Your task to perform on an android device: Open calendar and show me the third week of next month Image 0: 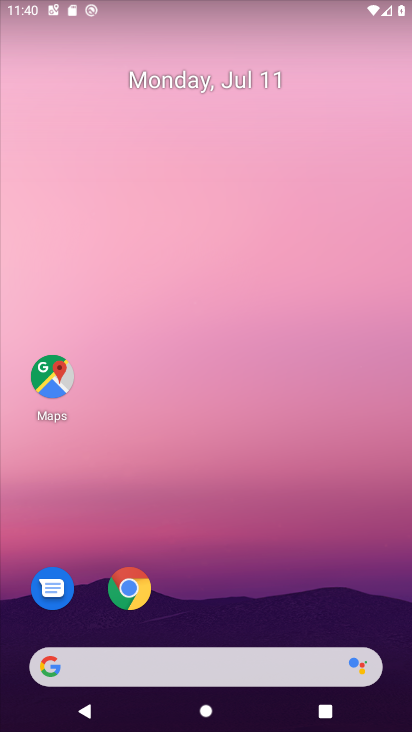
Step 0: drag from (264, 632) to (263, 307)
Your task to perform on an android device: Open calendar and show me the third week of next month Image 1: 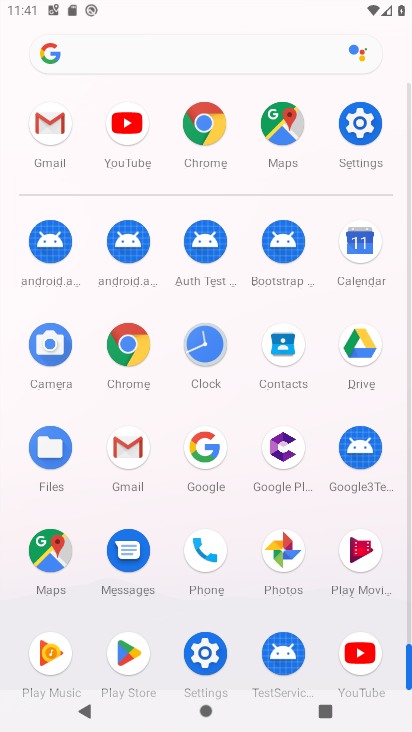
Step 1: click (354, 243)
Your task to perform on an android device: Open calendar and show me the third week of next month Image 2: 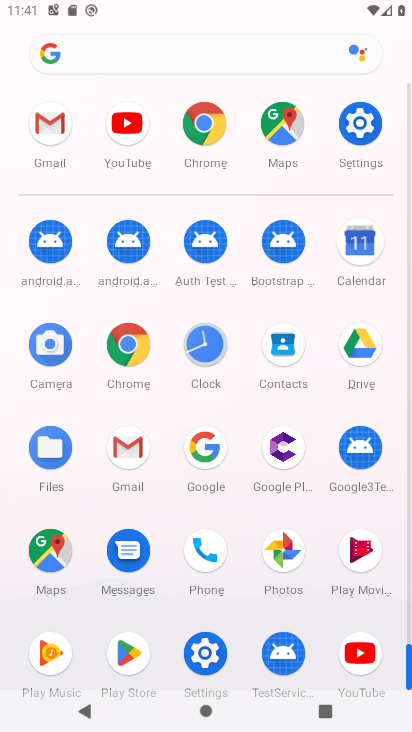
Step 2: click (361, 240)
Your task to perform on an android device: Open calendar and show me the third week of next month Image 3: 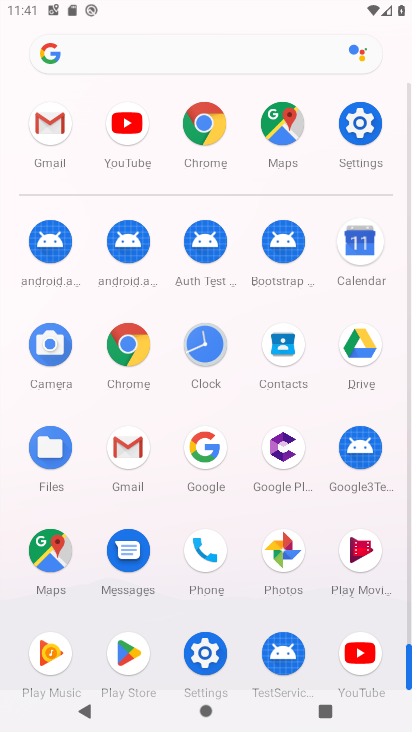
Step 3: click (364, 241)
Your task to perform on an android device: Open calendar and show me the third week of next month Image 4: 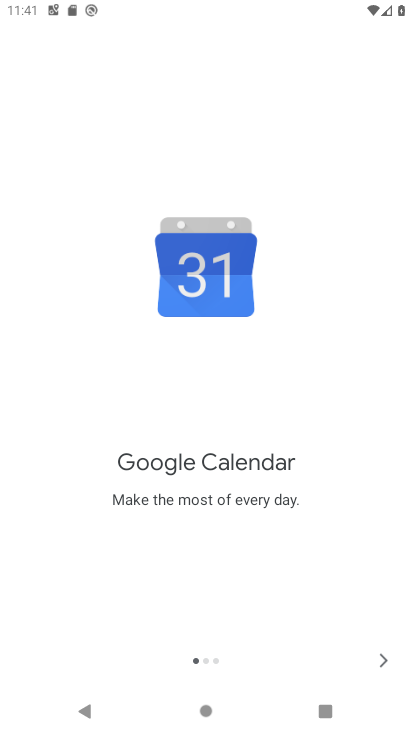
Step 4: click (380, 655)
Your task to perform on an android device: Open calendar and show me the third week of next month Image 5: 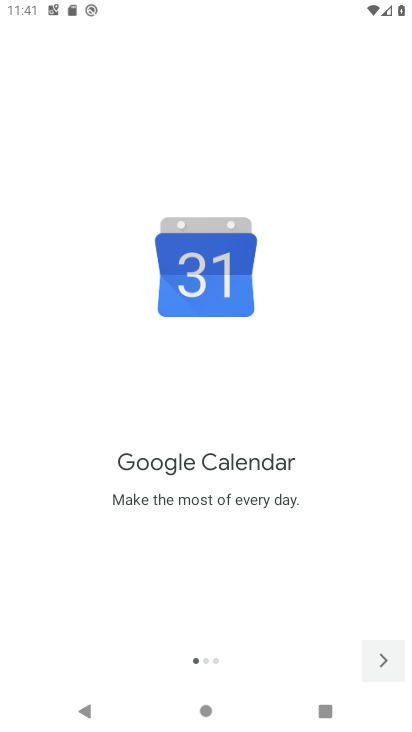
Step 5: click (386, 661)
Your task to perform on an android device: Open calendar and show me the third week of next month Image 6: 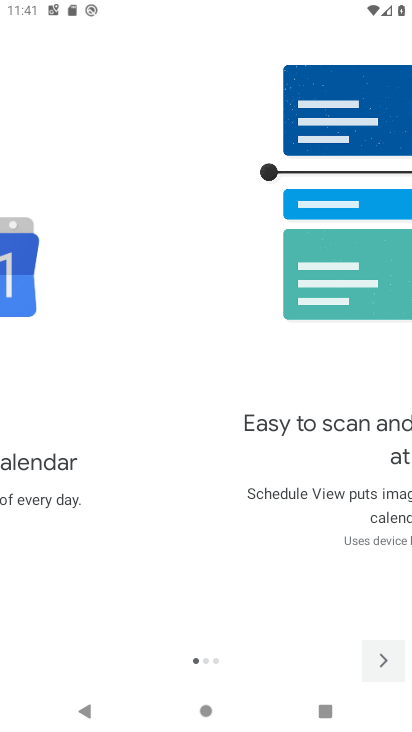
Step 6: click (388, 658)
Your task to perform on an android device: Open calendar and show me the third week of next month Image 7: 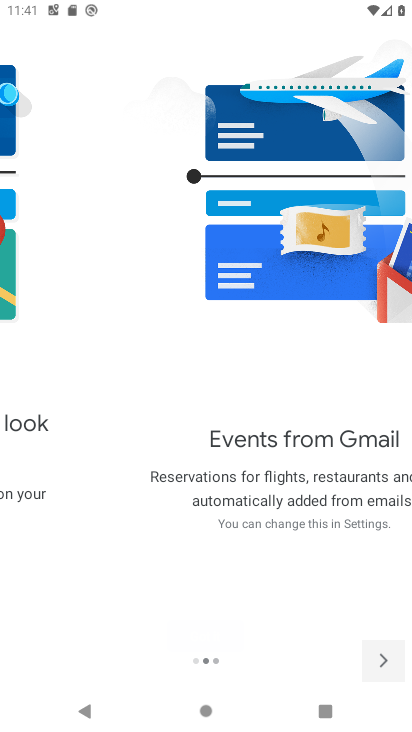
Step 7: click (388, 658)
Your task to perform on an android device: Open calendar and show me the third week of next month Image 8: 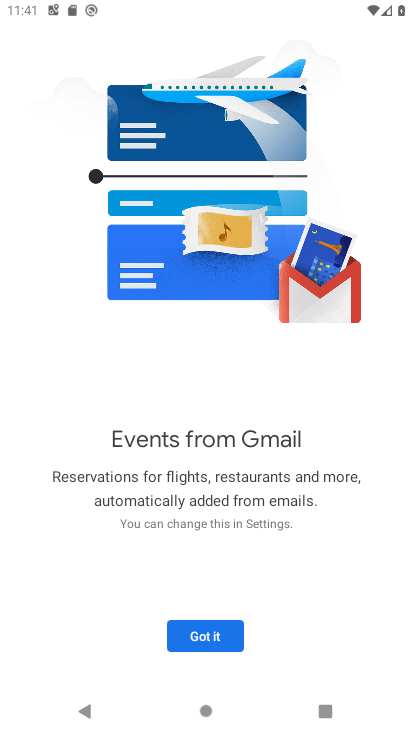
Step 8: click (383, 654)
Your task to perform on an android device: Open calendar and show me the third week of next month Image 9: 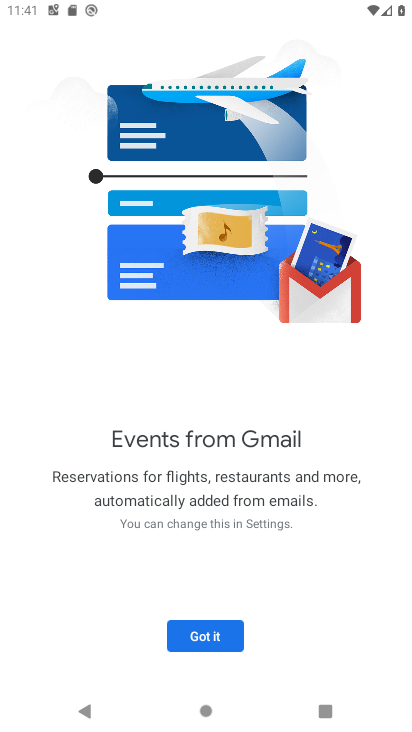
Step 9: click (227, 641)
Your task to perform on an android device: Open calendar and show me the third week of next month Image 10: 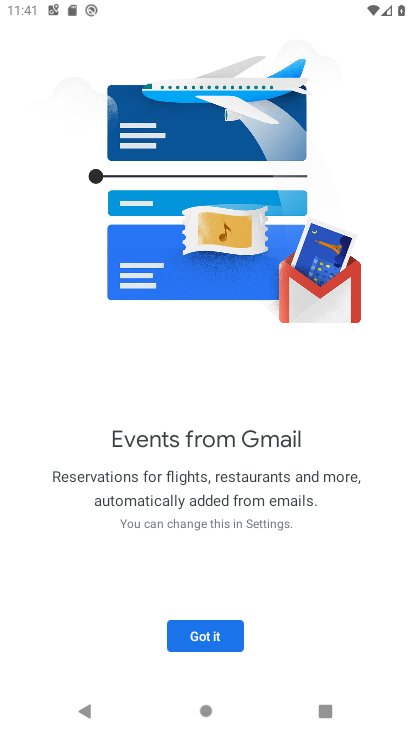
Step 10: click (216, 634)
Your task to perform on an android device: Open calendar and show me the third week of next month Image 11: 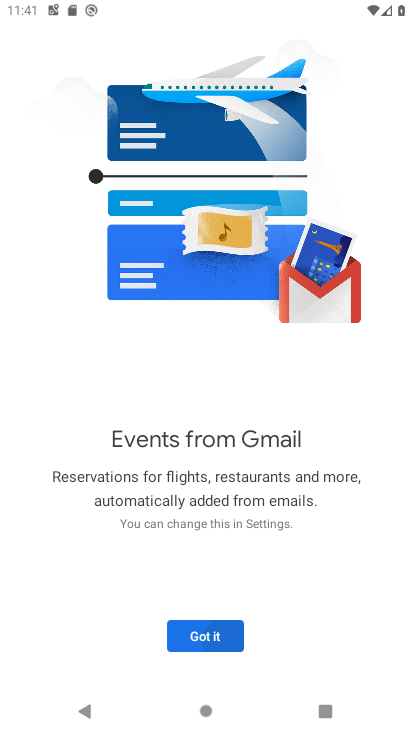
Step 11: click (215, 633)
Your task to perform on an android device: Open calendar and show me the third week of next month Image 12: 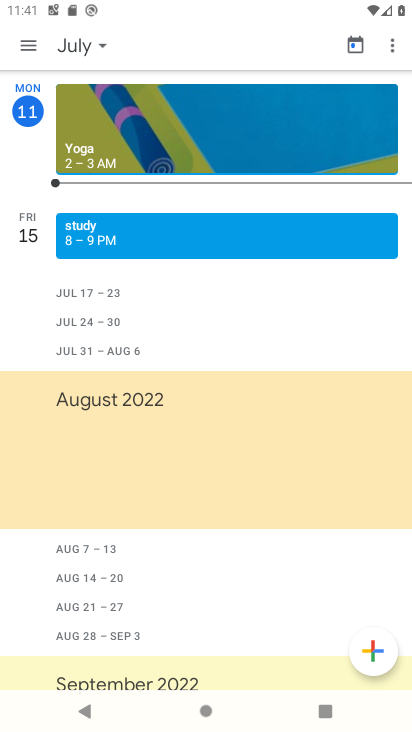
Step 12: click (104, 47)
Your task to perform on an android device: Open calendar and show me the third week of next month Image 13: 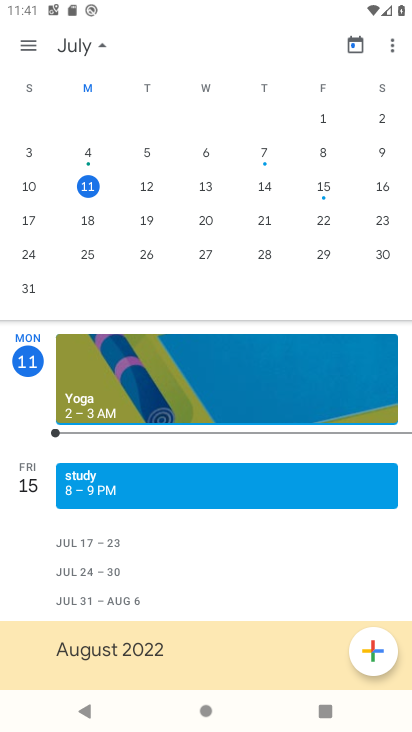
Step 13: drag from (287, 222) to (54, 198)
Your task to perform on an android device: Open calendar and show me the third week of next month Image 14: 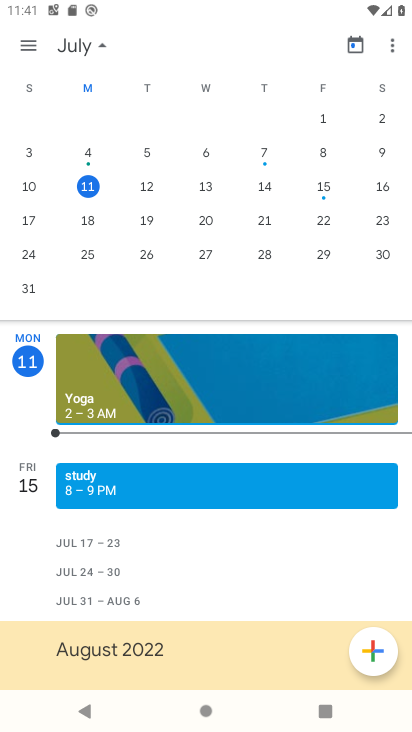
Step 14: drag from (228, 159) to (15, 226)
Your task to perform on an android device: Open calendar and show me the third week of next month Image 15: 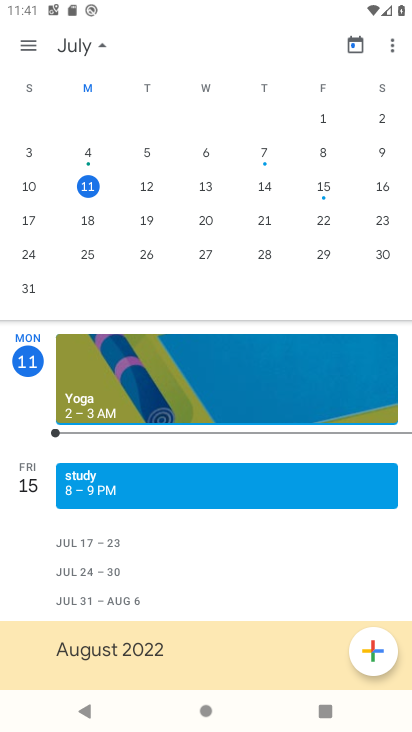
Step 15: drag from (262, 175) to (60, 288)
Your task to perform on an android device: Open calendar and show me the third week of next month Image 16: 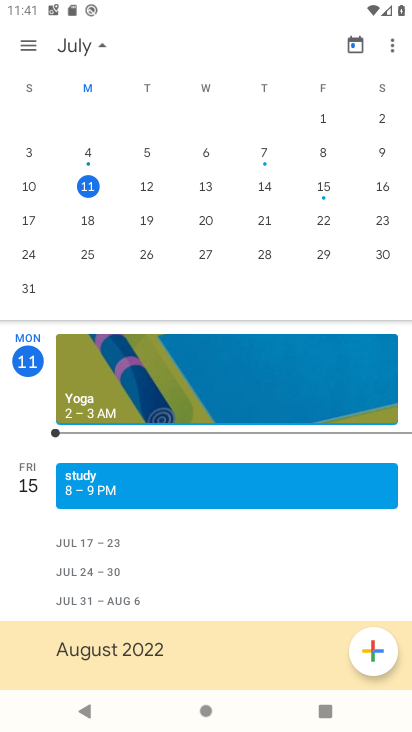
Step 16: drag from (308, 194) to (20, 238)
Your task to perform on an android device: Open calendar and show me the third week of next month Image 17: 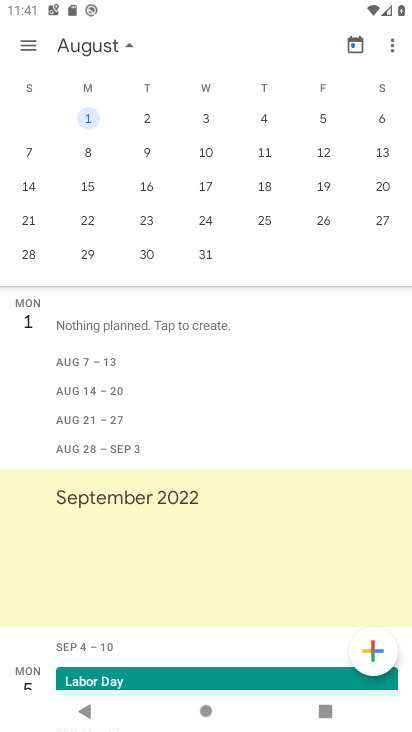
Step 17: click (145, 186)
Your task to perform on an android device: Open calendar and show me the third week of next month Image 18: 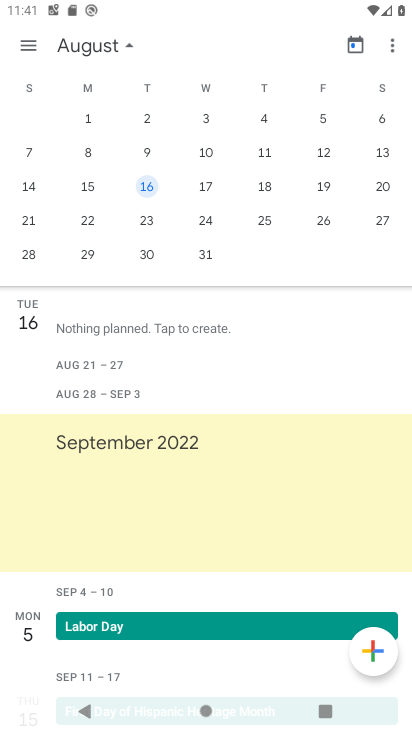
Step 18: click (144, 187)
Your task to perform on an android device: Open calendar and show me the third week of next month Image 19: 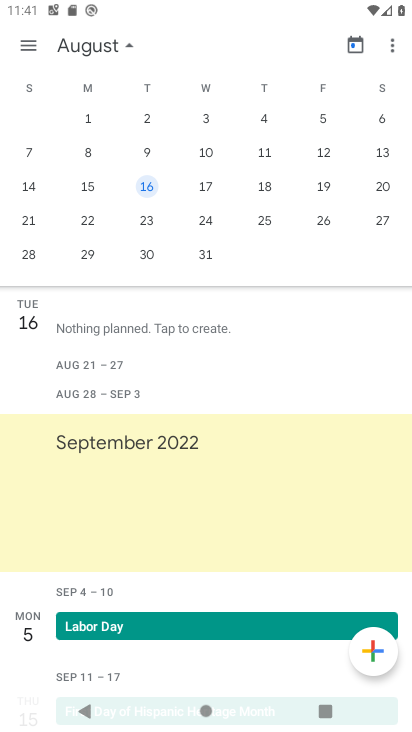
Step 19: click (144, 187)
Your task to perform on an android device: Open calendar and show me the third week of next month Image 20: 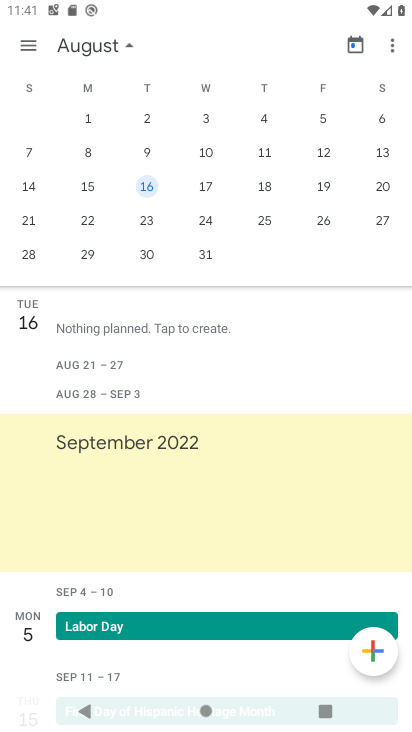
Step 20: task complete